Your task to perform on an android device: turn on notifications settings in the gmail app Image 0: 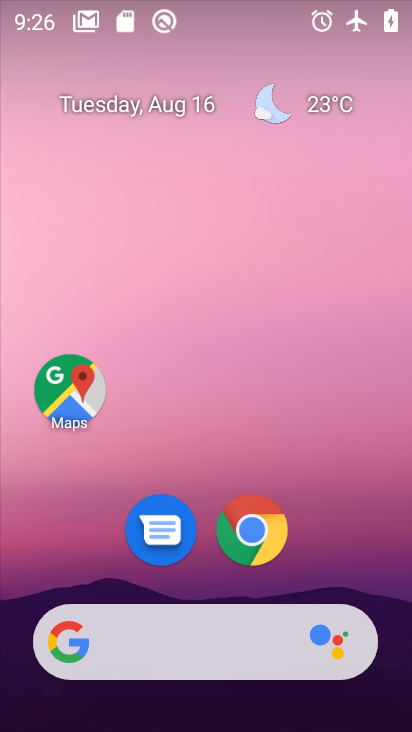
Step 0: drag from (328, 515) to (367, 36)
Your task to perform on an android device: turn on notifications settings in the gmail app Image 1: 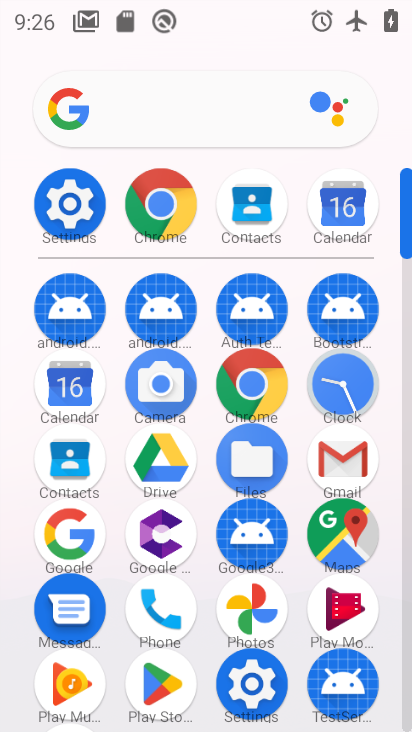
Step 1: click (357, 456)
Your task to perform on an android device: turn on notifications settings in the gmail app Image 2: 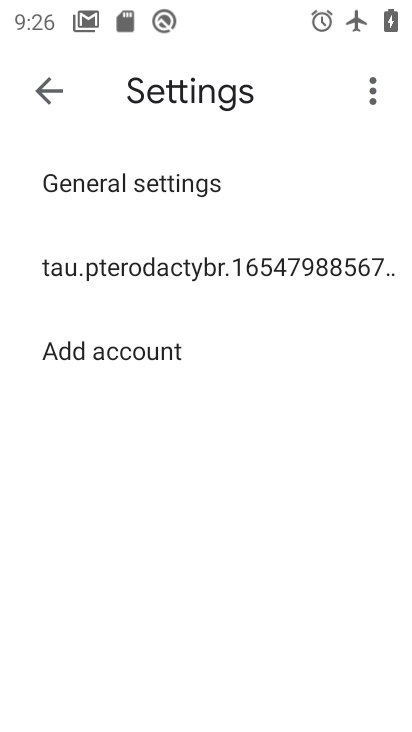
Step 2: click (212, 271)
Your task to perform on an android device: turn on notifications settings in the gmail app Image 3: 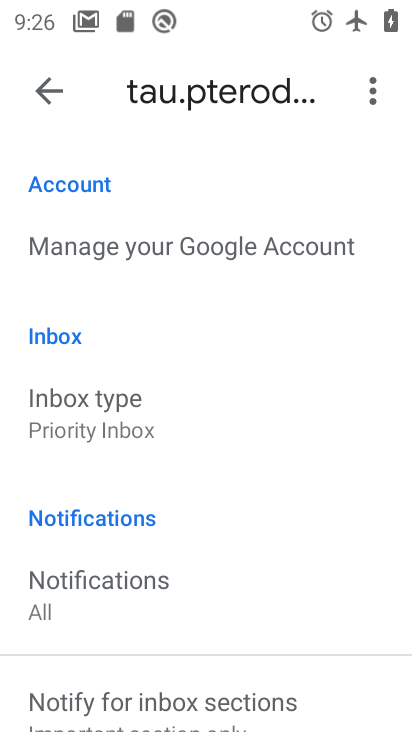
Step 3: drag from (303, 609) to (336, 322)
Your task to perform on an android device: turn on notifications settings in the gmail app Image 4: 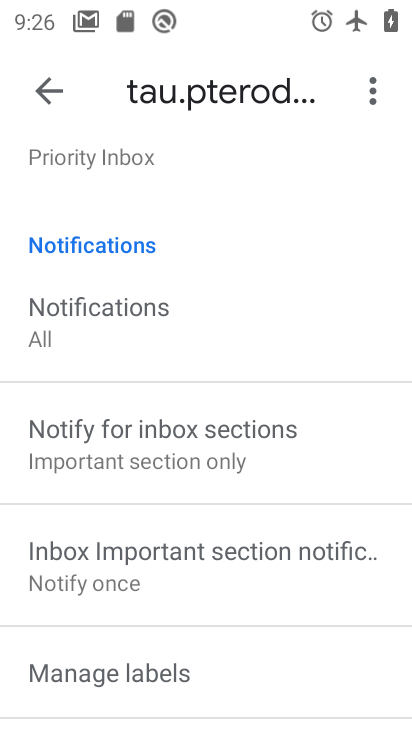
Step 4: drag from (224, 672) to (301, 393)
Your task to perform on an android device: turn on notifications settings in the gmail app Image 5: 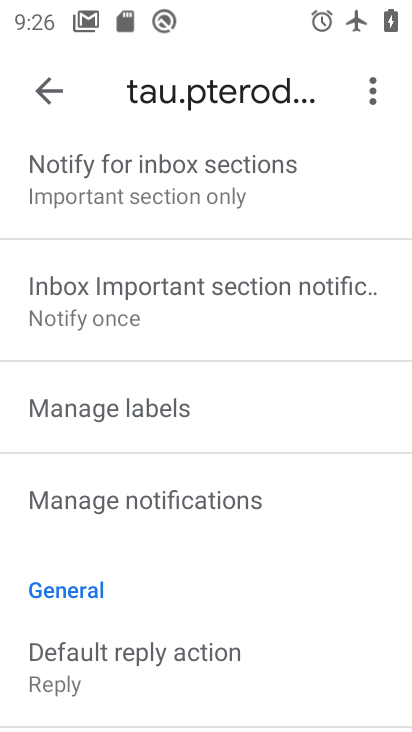
Step 5: click (209, 518)
Your task to perform on an android device: turn on notifications settings in the gmail app Image 6: 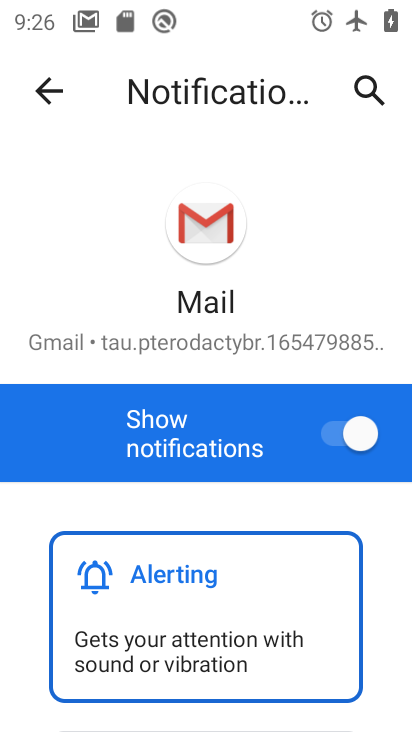
Step 6: task complete